Your task to perform on an android device: turn on airplane mode Image 0: 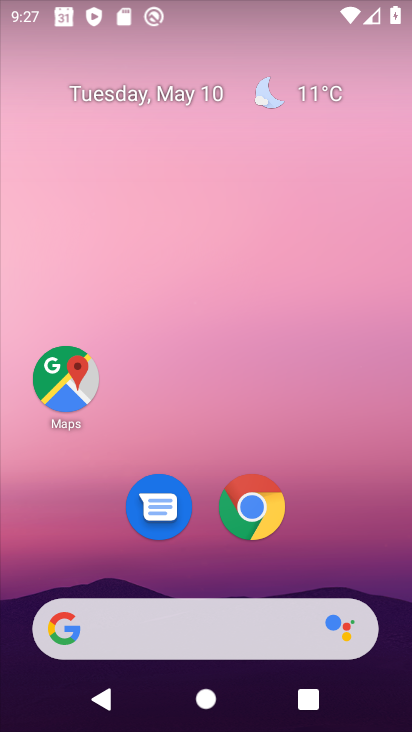
Step 0: drag from (220, 551) to (284, 70)
Your task to perform on an android device: turn on airplane mode Image 1: 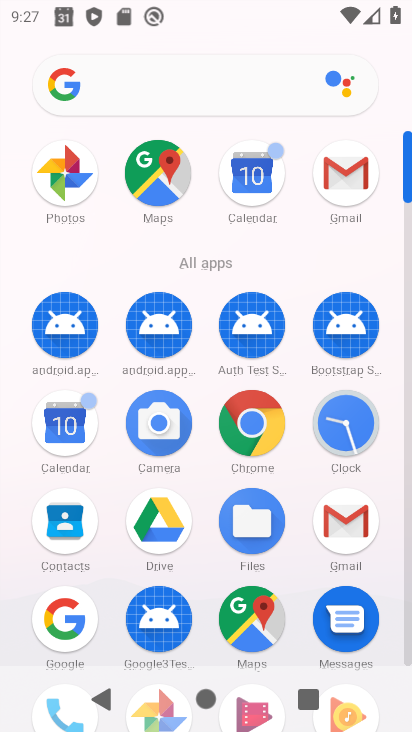
Step 1: drag from (264, 2) to (290, 489)
Your task to perform on an android device: turn on airplane mode Image 2: 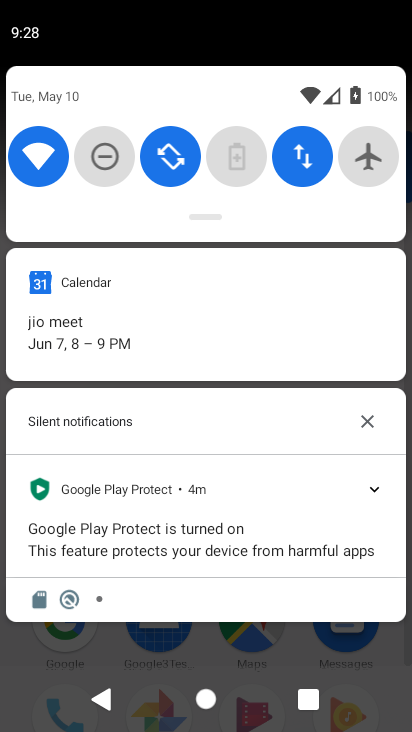
Step 2: click (378, 144)
Your task to perform on an android device: turn on airplane mode Image 3: 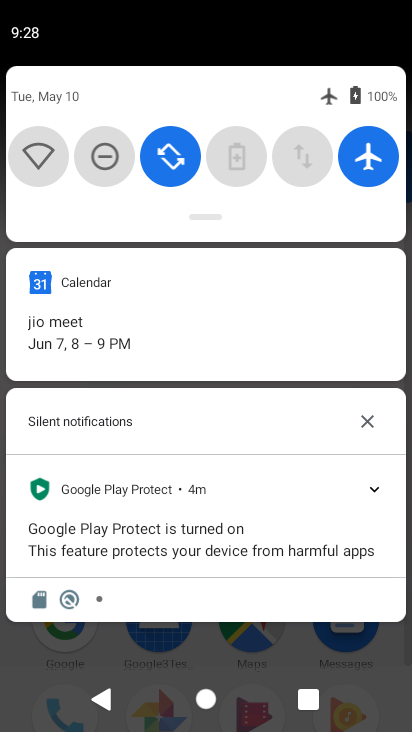
Step 3: task complete